Your task to perform on an android device: turn off location Image 0: 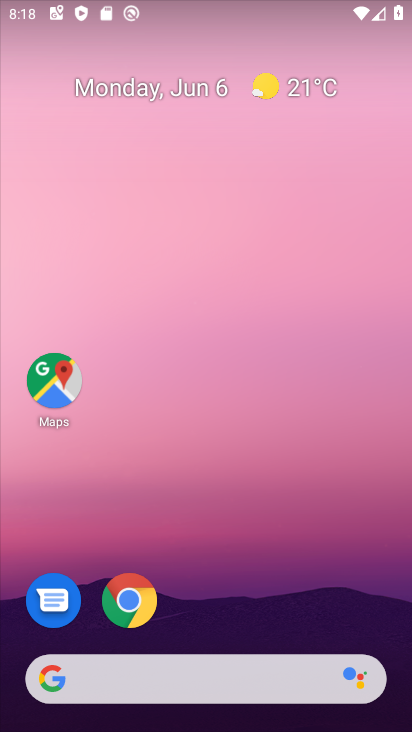
Step 0: drag from (380, 614) to (333, 53)
Your task to perform on an android device: turn off location Image 1: 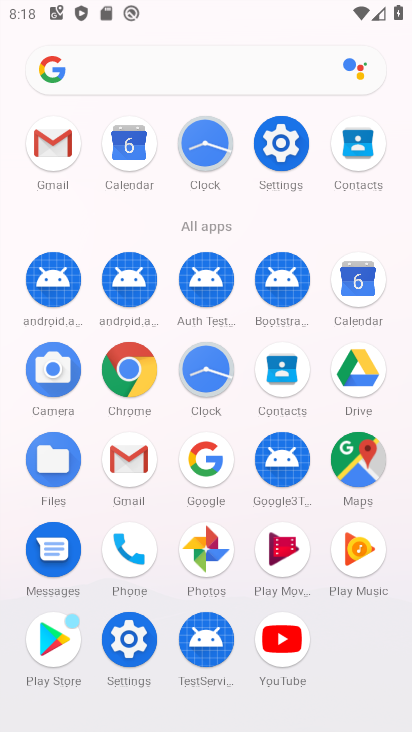
Step 1: click (125, 642)
Your task to perform on an android device: turn off location Image 2: 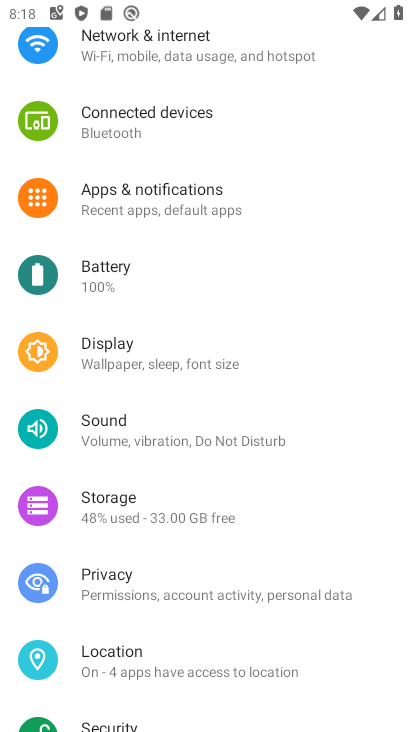
Step 2: click (87, 646)
Your task to perform on an android device: turn off location Image 3: 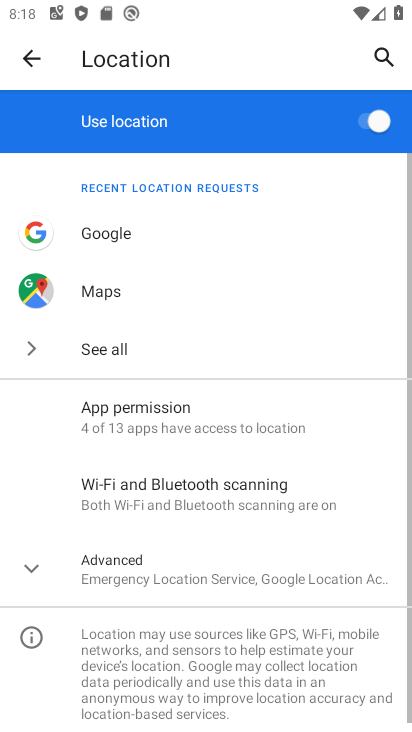
Step 3: click (358, 122)
Your task to perform on an android device: turn off location Image 4: 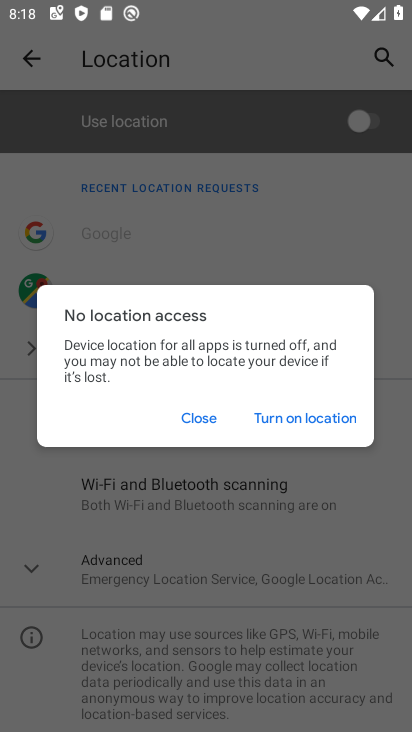
Step 4: task complete